Your task to perform on an android device: choose inbox layout in the gmail app Image 0: 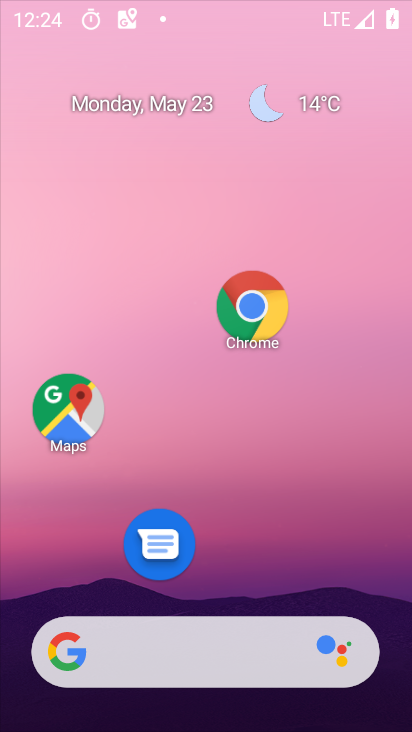
Step 0: drag from (259, 423) to (256, 124)
Your task to perform on an android device: choose inbox layout in the gmail app Image 1: 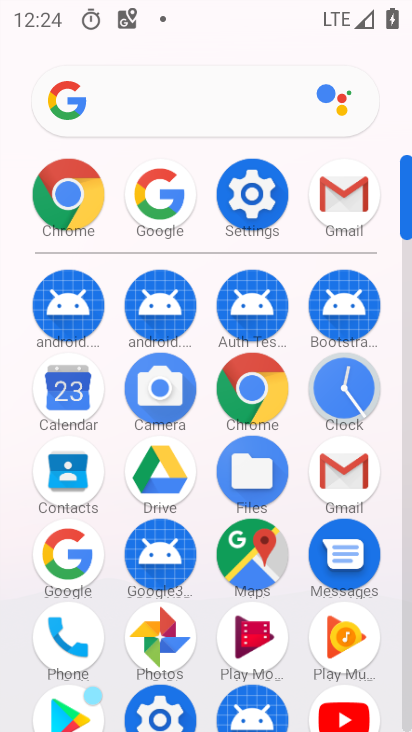
Step 1: click (336, 202)
Your task to perform on an android device: choose inbox layout in the gmail app Image 2: 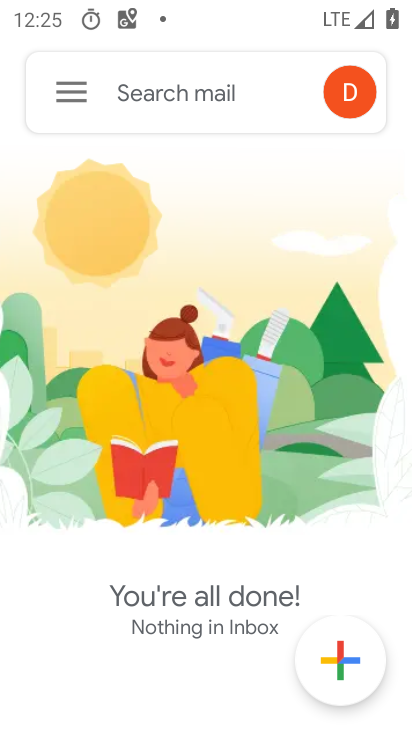
Step 2: click (83, 80)
Your task to perform on an android device: choose inbox layout in the gmail app Image 3: 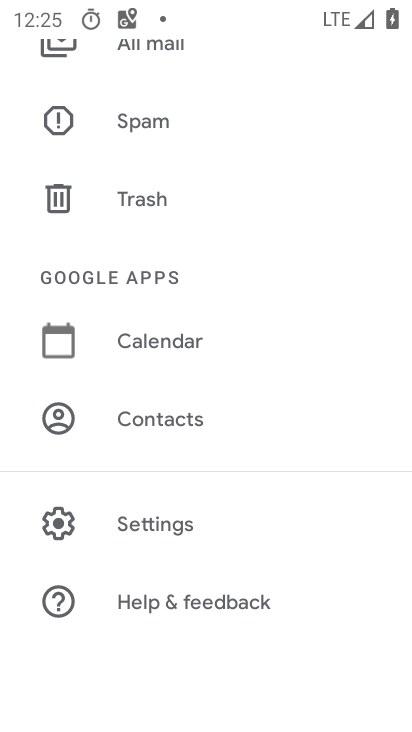
Step 3: drag from (165, 174) to (173, 480)
Your task to perform on an android device: choose inbox layout in the gmail app Image 4: 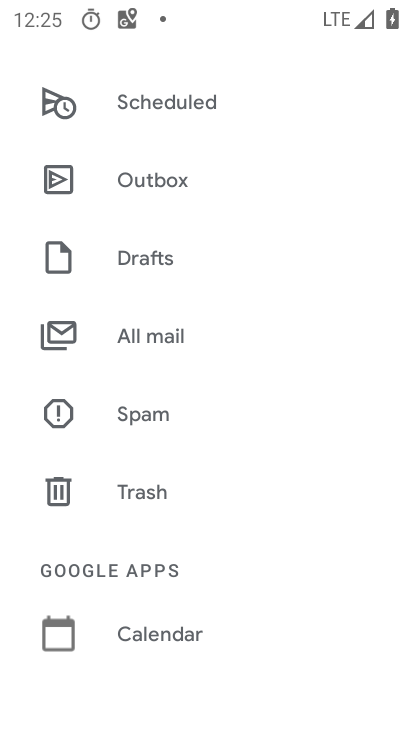
Step 4: drag from (196, 641) to (188, 370)
Your task to perform on an android device: choose inbox layout in the gmail app Image 5: 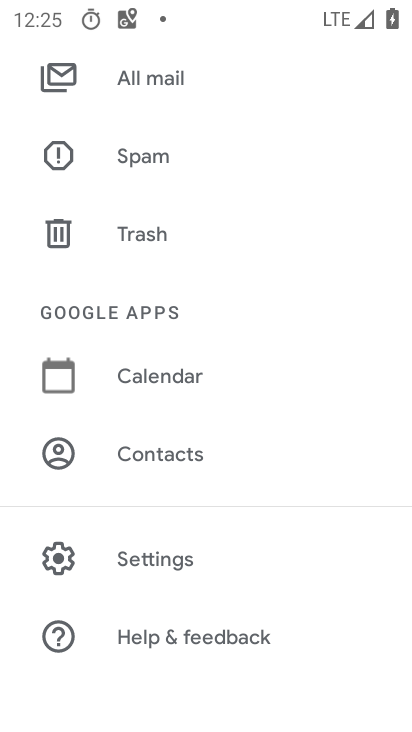
Step 5: click (151, 563)
Your task to perform on an android device: choose inbox layout in the gmail app Image 6: 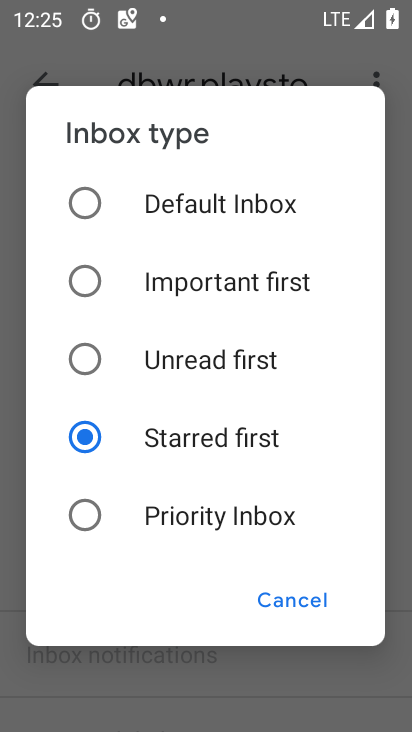
Step 6: click (93, 198)
Your task to perform on an android device: choose inbox layout in the gmail app Image 7: 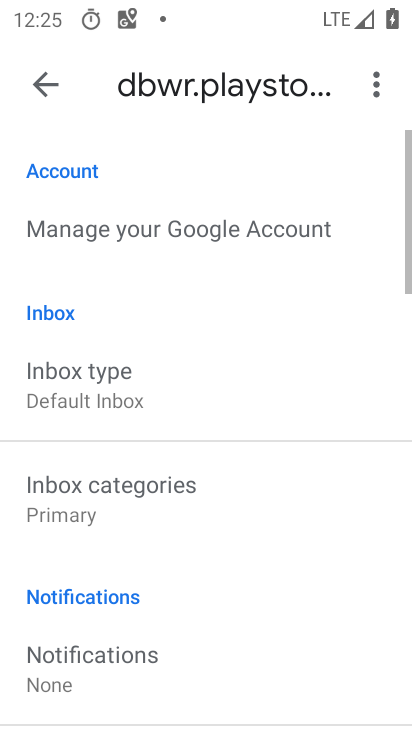
Step 7: task complete